Your task to perform on an android device: change text size in settings app Image 0: 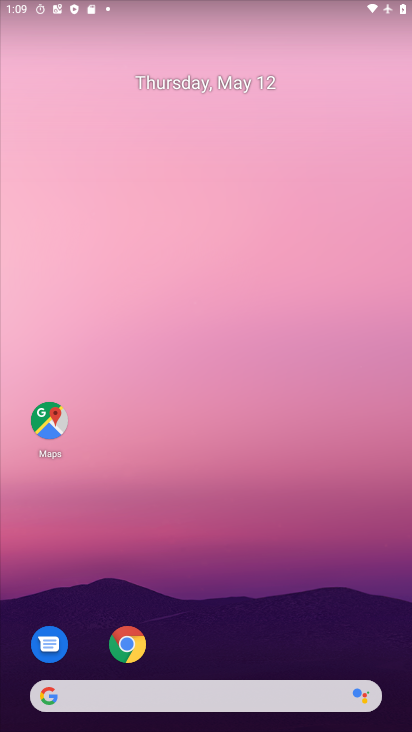
Step 0: drag from (262, 563) to (229, 104)
Your task to perform on an android device: change text size in settings app Image 1: 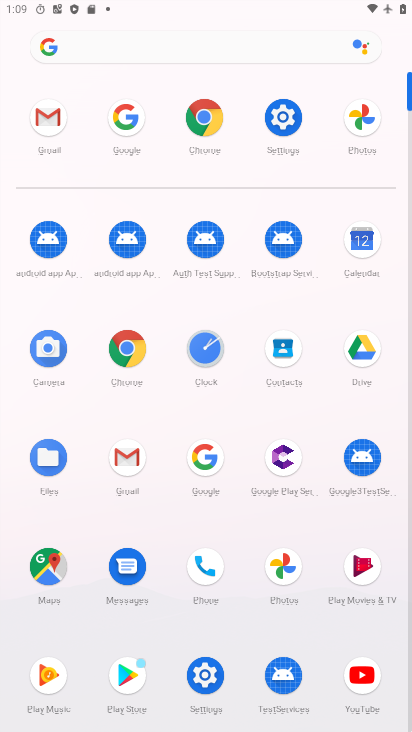
Step 1: click (277, 116)
Your task to perform on an android device: change text size in settings app Image 2: 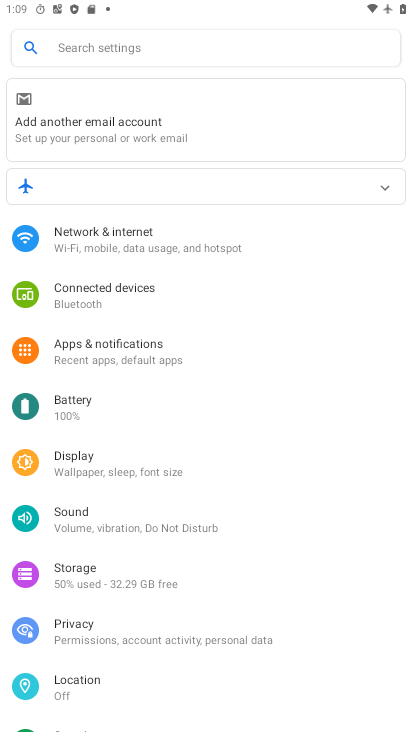
Step 2: click (110, 455)
Your task to perform on an android device: change text size in settings app Image 3: 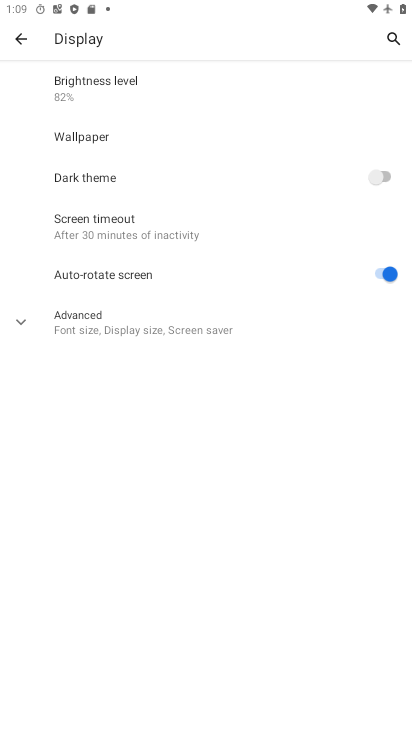
Step 3: click (118, 312)
Your task to perform on an android device: change text size in settings app Image 4: 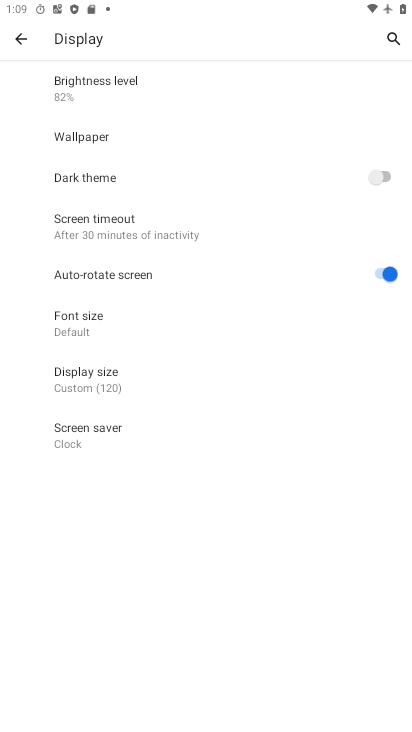
Step 4: click (113, 313)
Your task to perform on an android device: change text size in settings app Image 5: 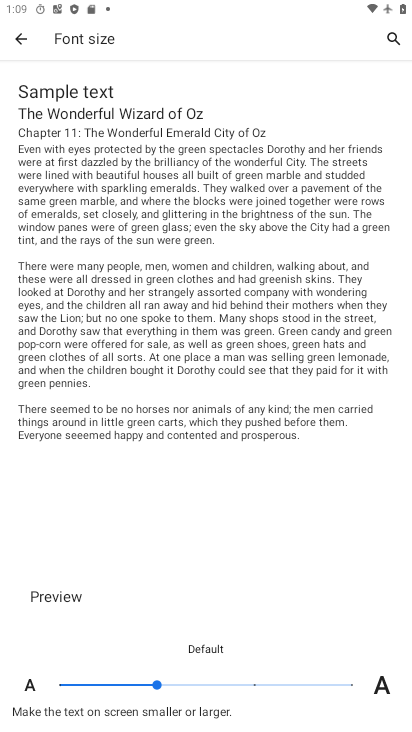
Step 5: click (64, 684)
Your task to perform on an android device: change text size in settings app Image 6: 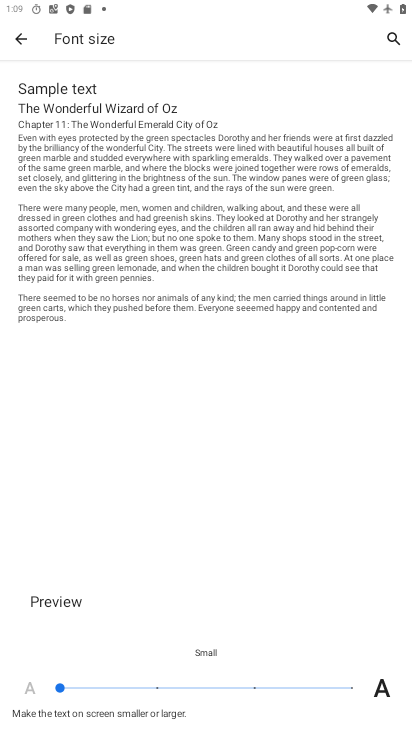
Step 6: task complete